Your task to perform on an android device: Open Chrome and go to the settings page Image 0: 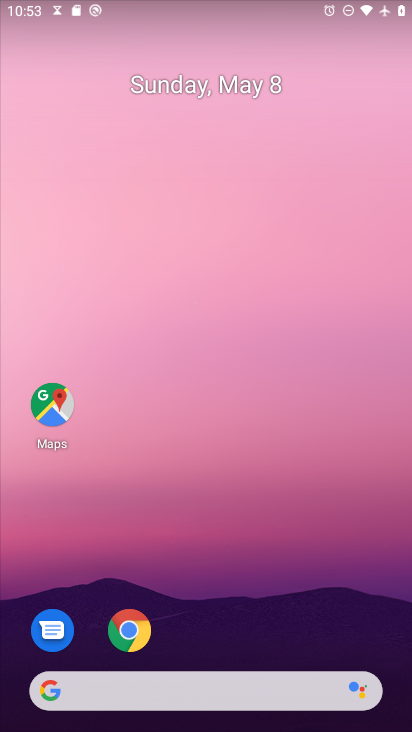
Step 0: click (135, 632)
Your task to perform on an android device: Open Chrome and go to the settings page Image 1: 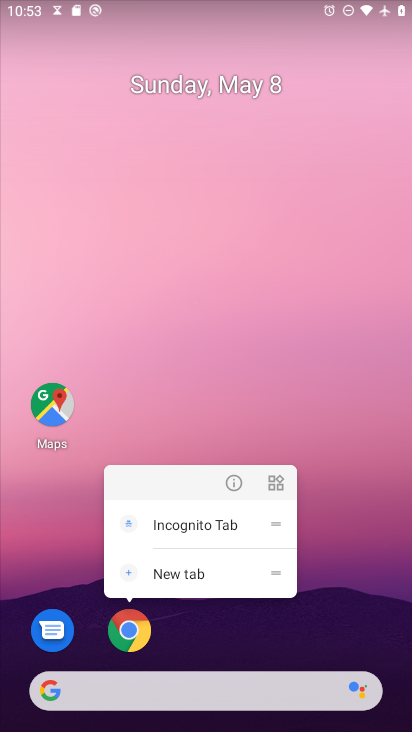
Step 1: click (127, 639)
Your task to perform on an android device: Open Chrome and go to the settings page Image 2: 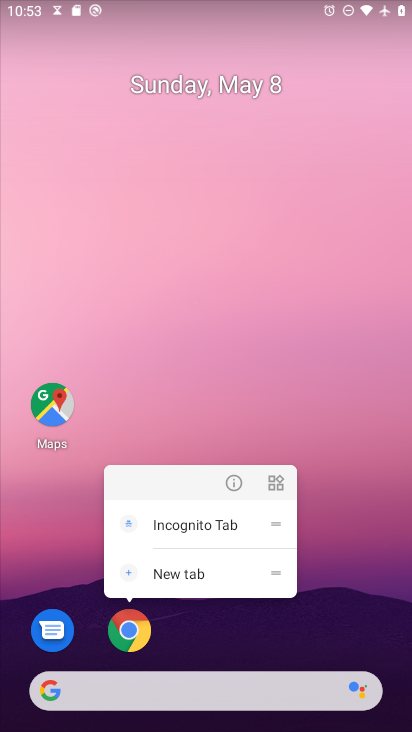
Step 2: click (129, 630)
Your task to perform on an android device: Open Chrome and go to the settings page Image 3: 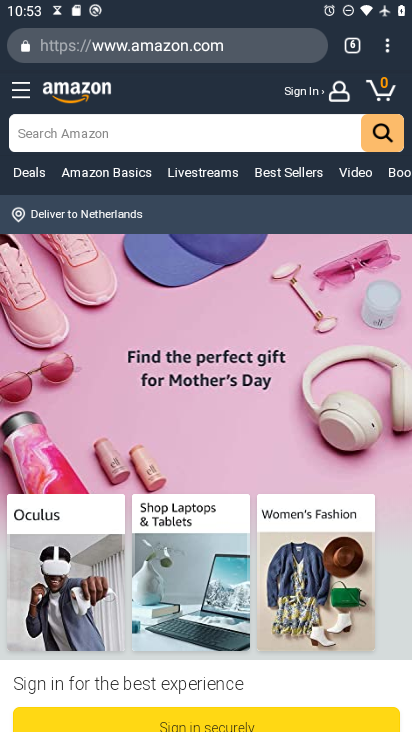
Step 3: task complete